Your task to perform on an android device: Do I have any events today? Image 0: 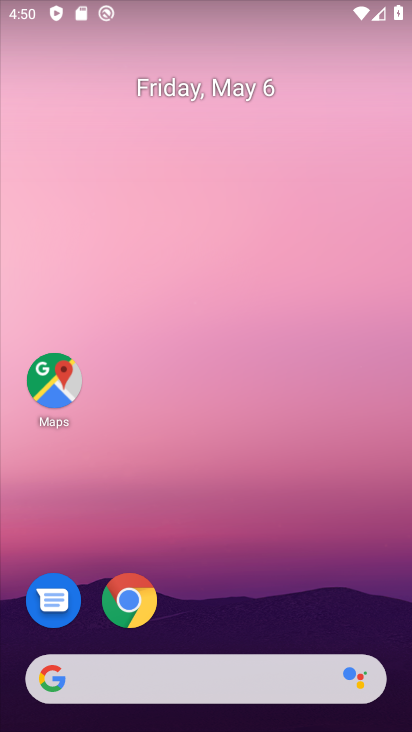
Step 0: drag from (234, 611) to (291, 228)
Your task to perform on an android device: Do I have any events today? Image 1: 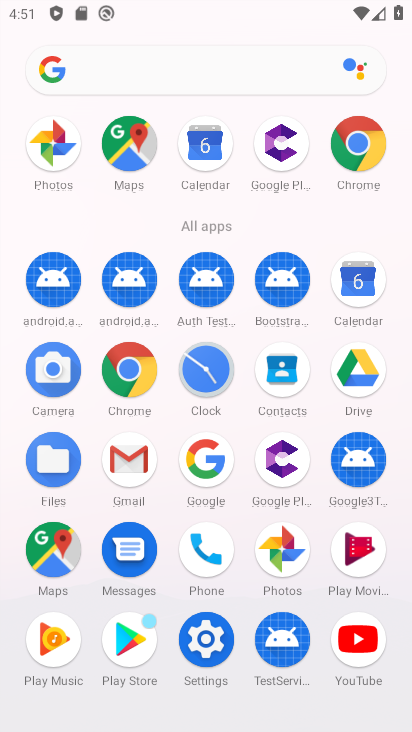
Step 1: click (353, 307)
Your task to perform on an android device: Do I have any events today? Image 2: 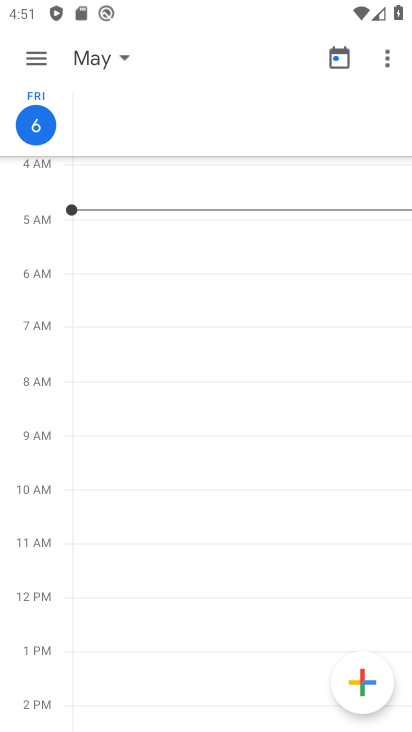
Step 2: click (45, 46)
Your task to perform on an android device: Do I have any events today? Image 3: 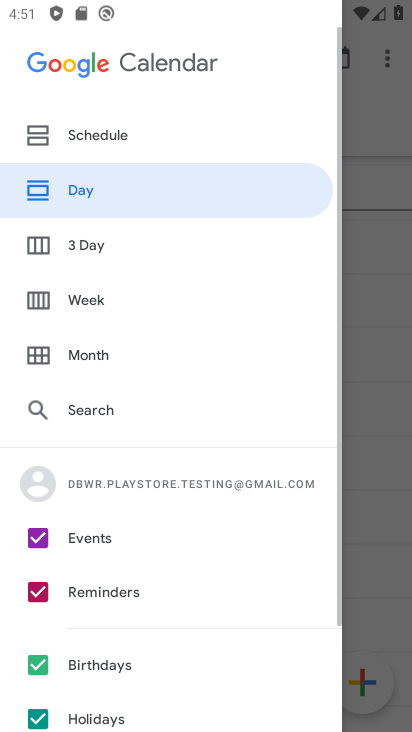
Step 3: click (109, 599)
Your task to perform on an android device: Do I have any events today? Image 4: 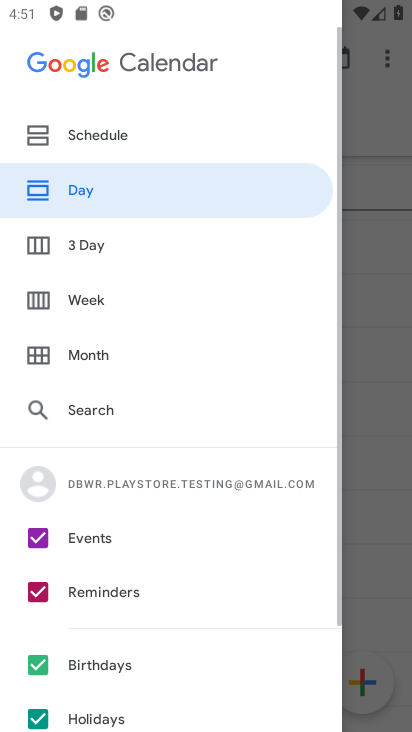
Step 4: drag from (126, 615) to (186, 237)
Your task to perform on an android device: Do I have any events today? Image 5: 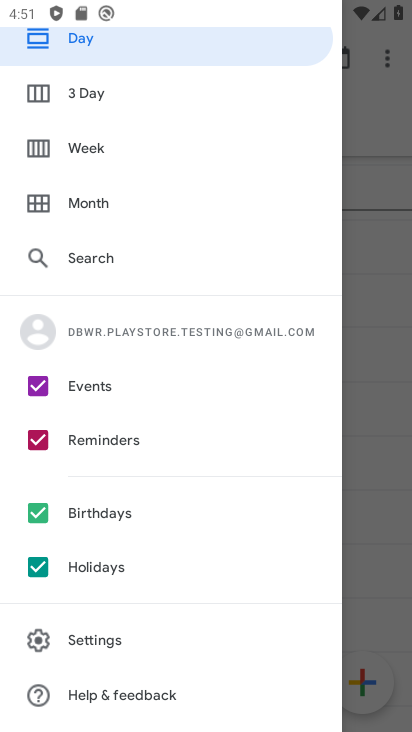
Step 5: click (36, 512)
Your task to perform on an android device: Do I have any events today? Image 6: 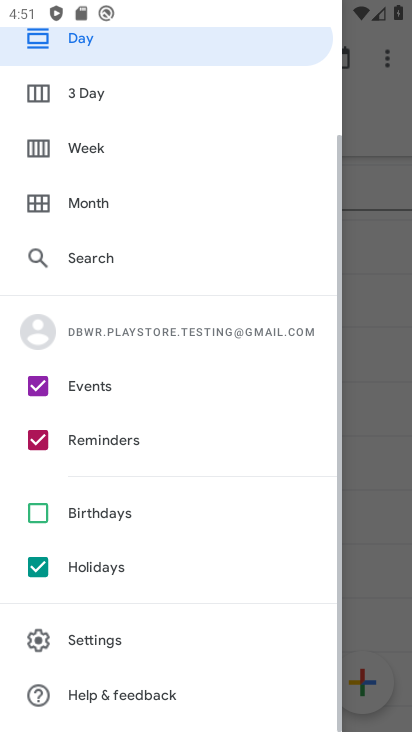
Step 6: click (46, 446)
Your task to perform on an android device: Do I have any events today? Image 7: 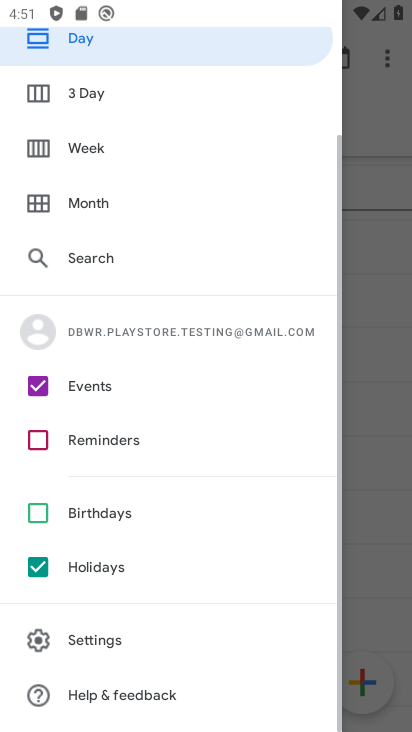
Step 7: click (40, 570)
Your task to perform on an android device: Do I have any events today? Image 8: 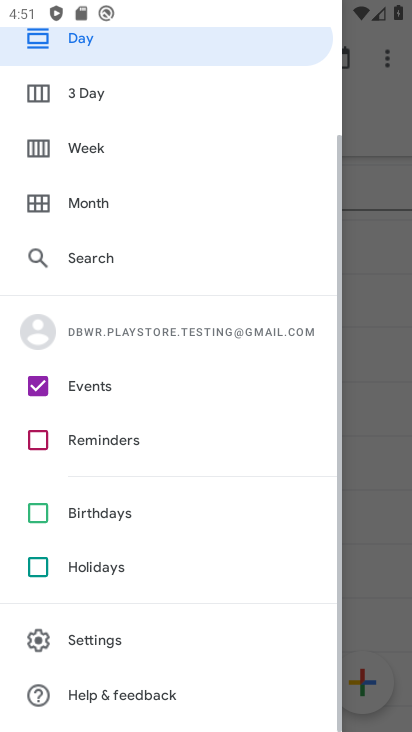
Step 8: click (121, 33)
Your task to perform on an android device: Do I have any events today? Image 9: 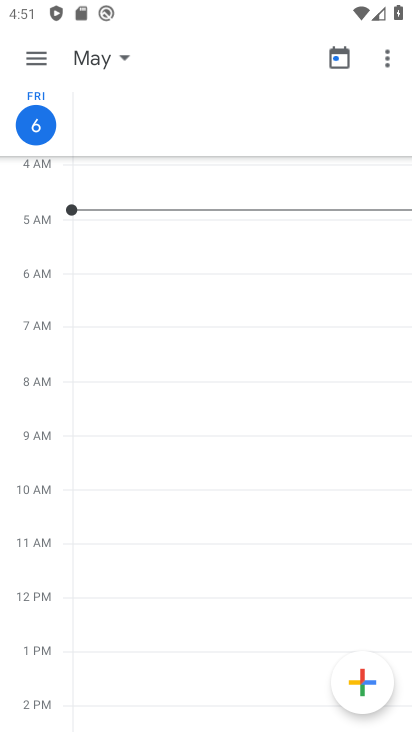
Step 9: task complete